Your task to perform on an android device: Search for "razer kraken" on target.com, select the first entry, and add it to the cart. Image 0: 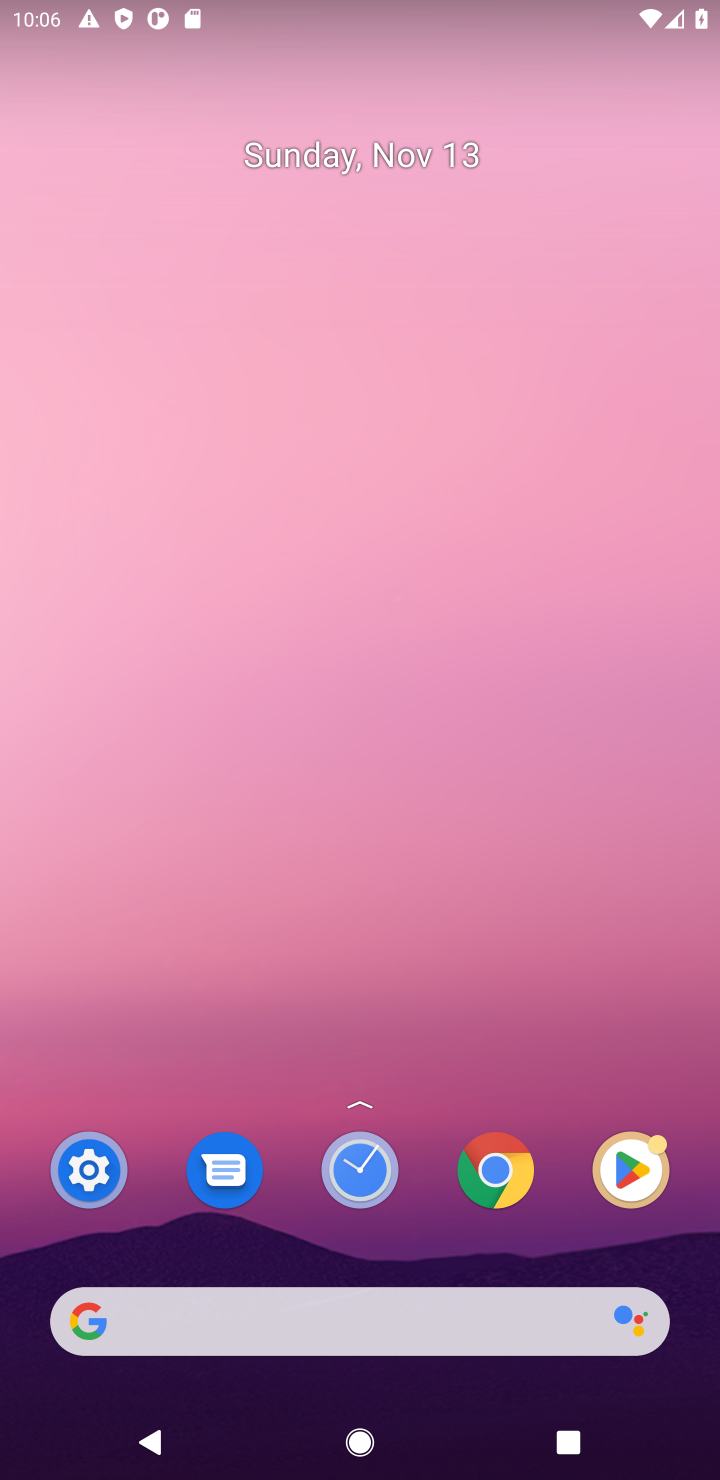
Step 0: click (404, 1352)
Your task to perform on an android device: Search for "razer kraken" on target.com, select the first entry, and add it to the cart. Image 1: 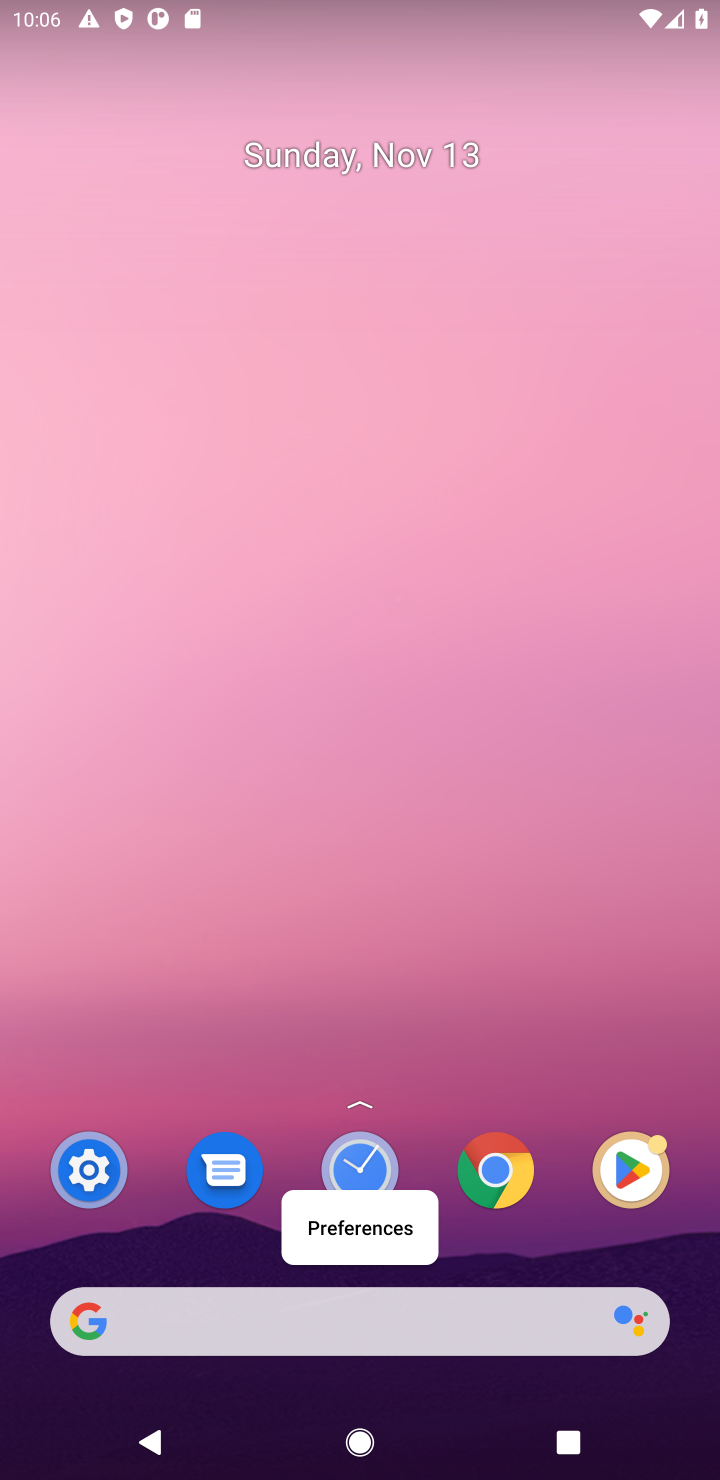
Step 1: type "target,com"
Your task to perform on an android device: Search for "razer kraken" on target.com, select the first entry, and add it to the cart. Image 2: 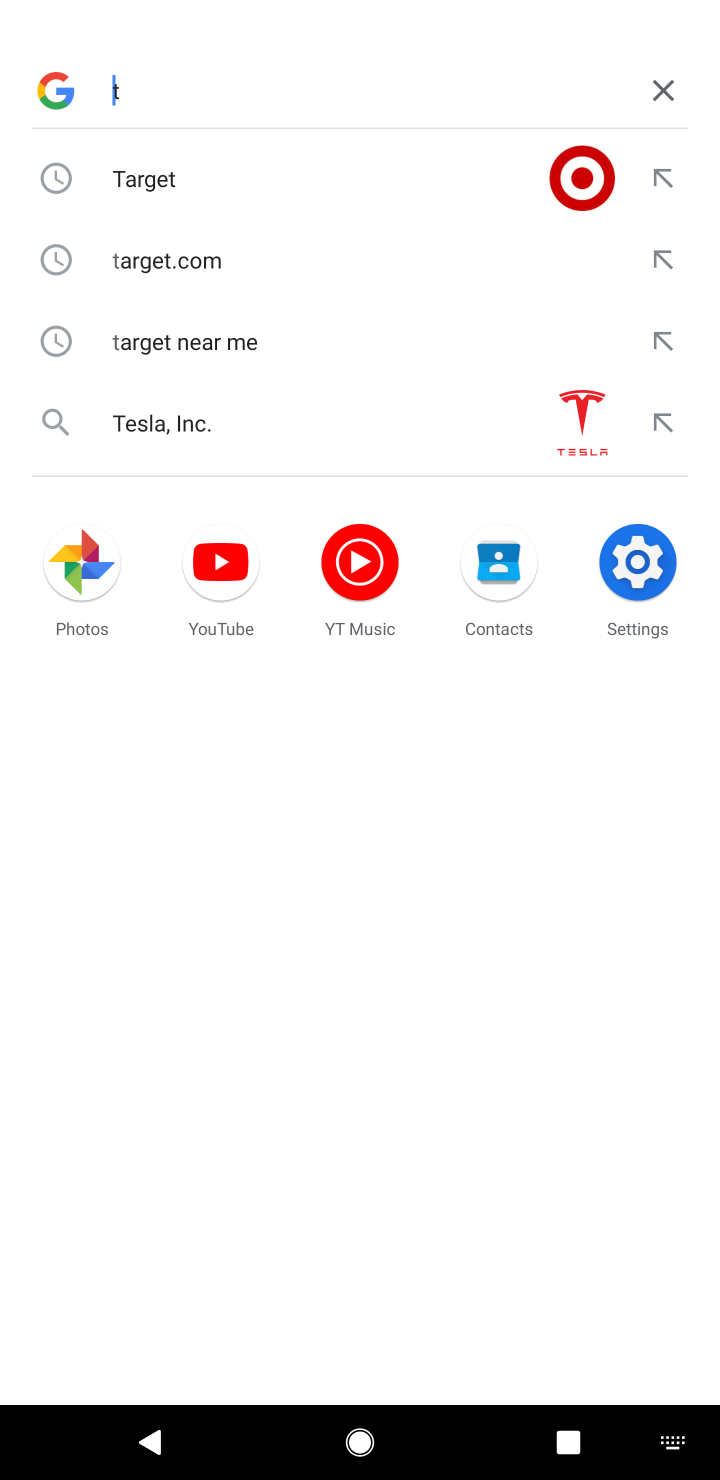
Step 2: click (182, 190)
Your task to perform on an android device: Search for "razer kraken" on target.com, select the first entry, and add it to the cart. Image 3: 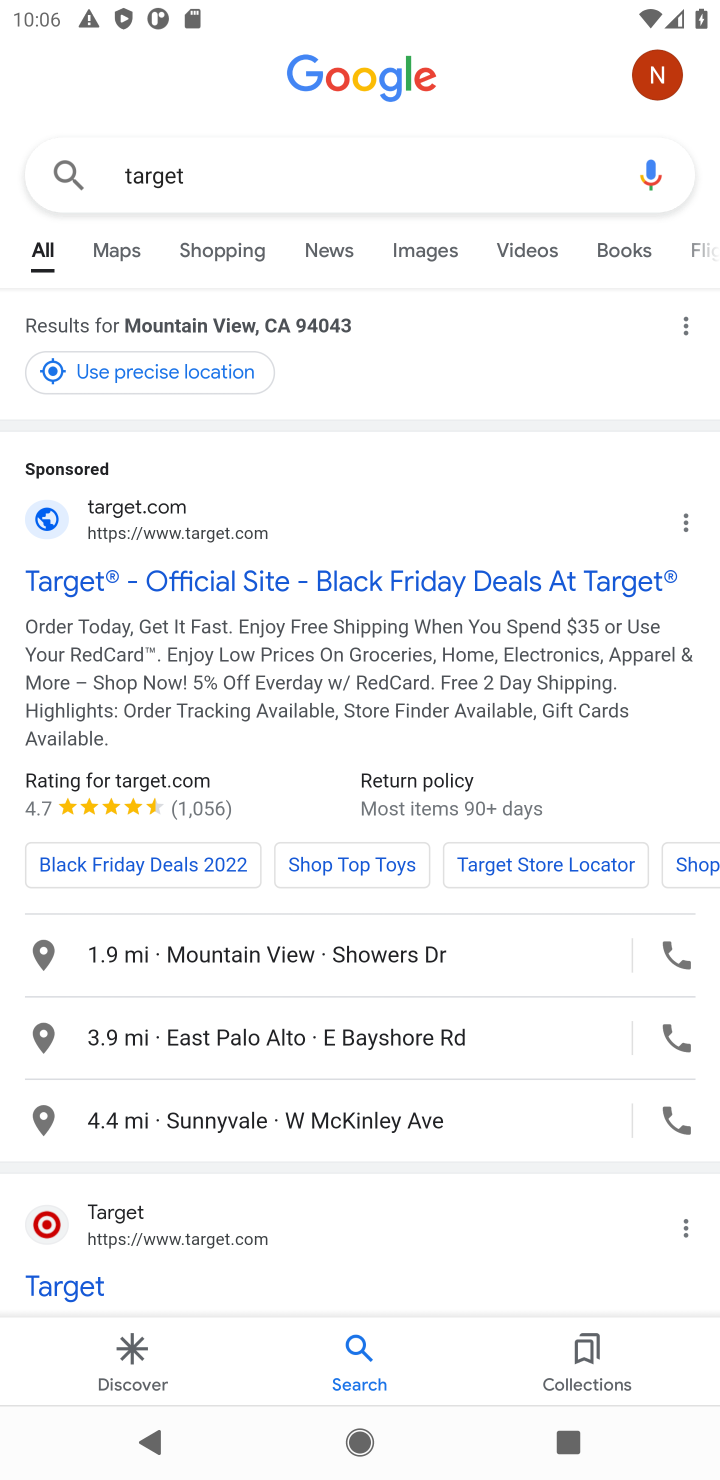
Step 3: click (128, 592)
Your task to perform on an android device: Search for "razer kraken" on target.com, select the first entry, and add it to the cart. Image 4: 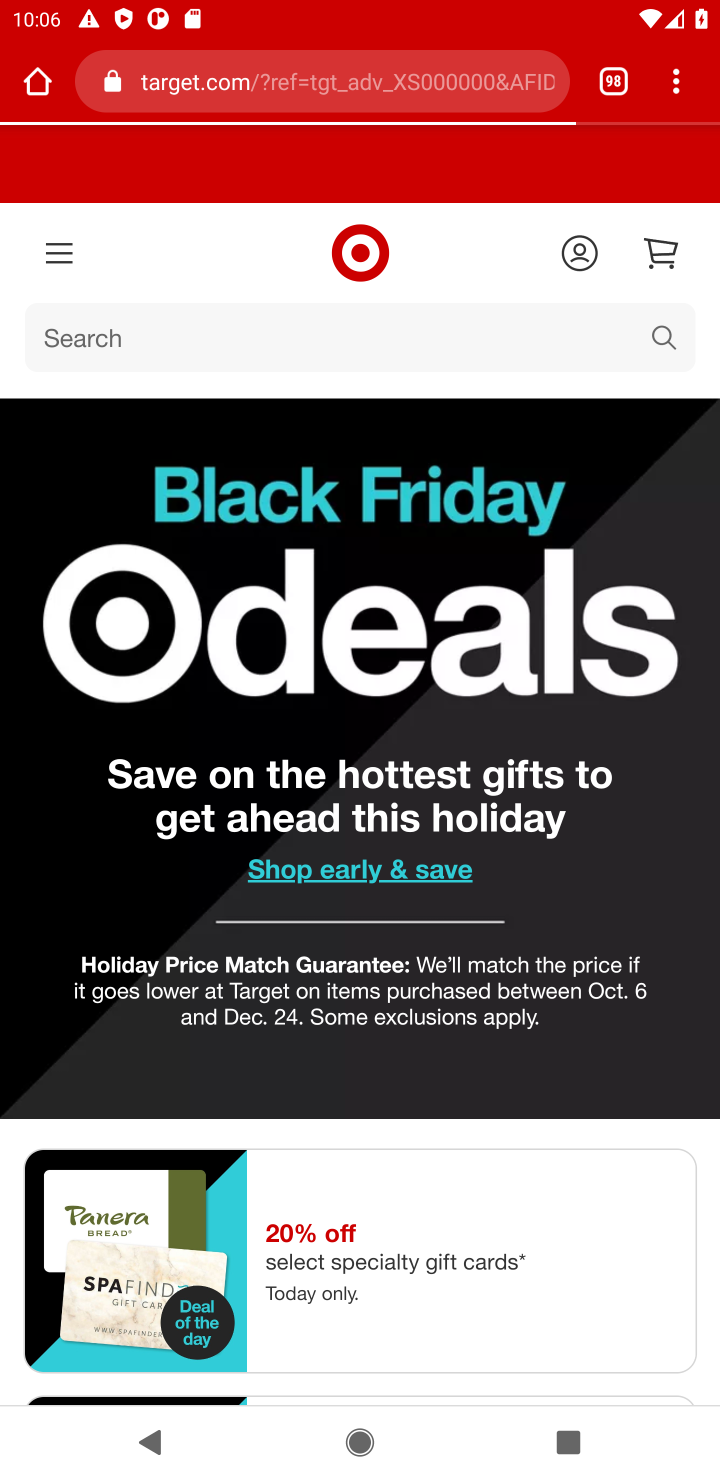
Step 4: task complete